Your task to perform on an android device: Open Google Maps and go to "Timeline" Image 0: 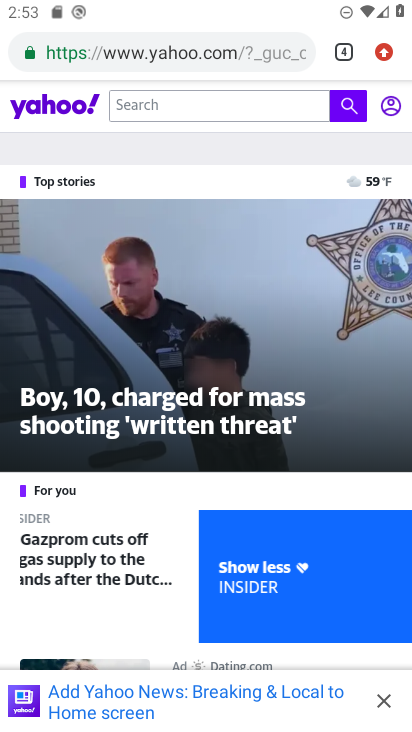
Step 0: press back button
Your task to perform on an android device: Open Google Maps and go to "Timeline" Image 1: 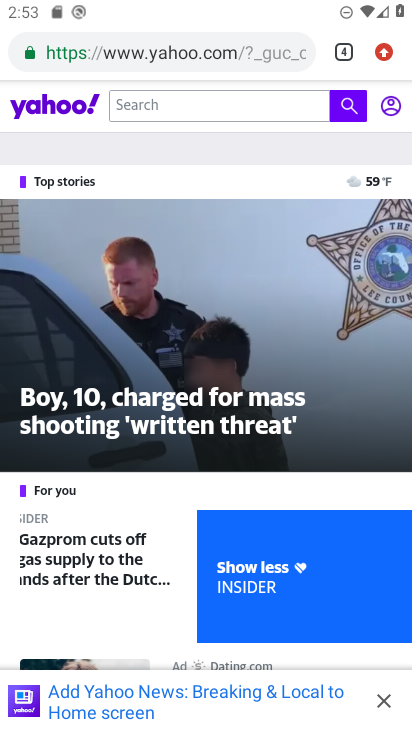
Step 1: press back button
Your task to perform on an android device: Open Google Maps and go to "Timeline" Image 2: 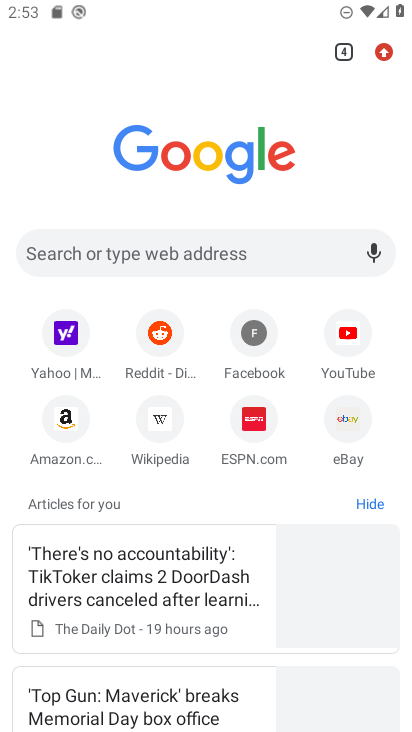
Step 2: press back button
Your task to perform on an android device: Open Google Maps and go to "Timeline" Image 3: 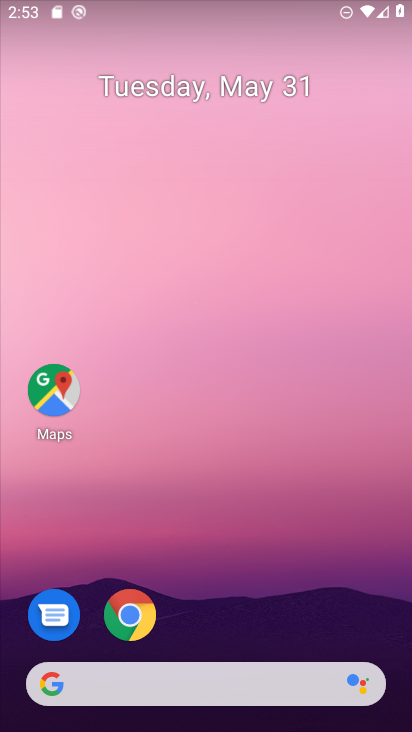
Step 3: drag from (220, 615) to (157, 302)
Your task to perform on an android device: Open Google Maps and go to "Timeline" Image 4: 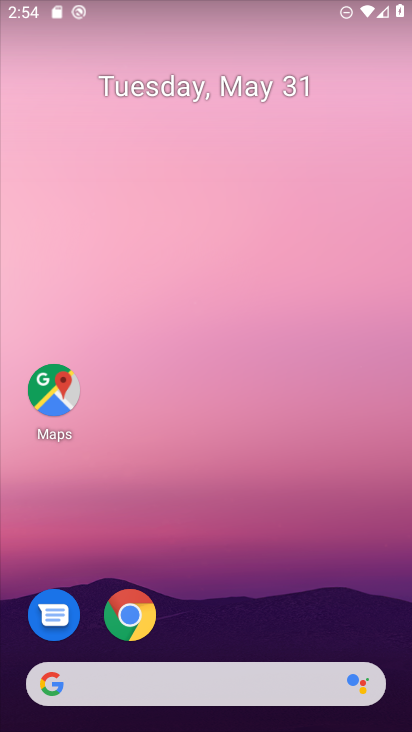
Step 4: drag from (264, 671) to (186, 143)
Your task to perform on an android device: Open Google Maps and go to "Timeline" Image 5: 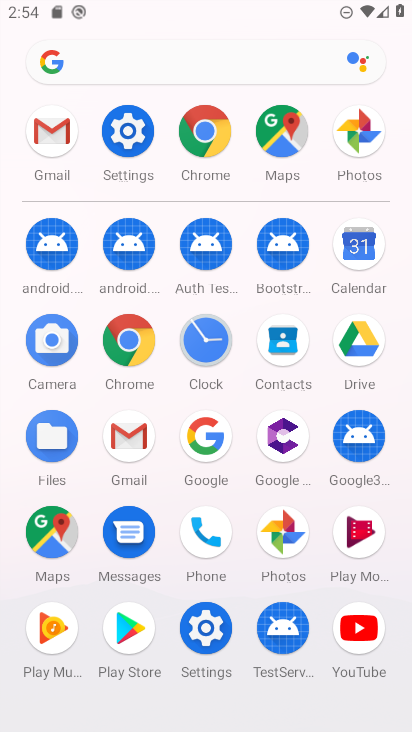
Step 5: click (57, 543)
Your task to perform on an android device: Open Google Maps and go to "Timeline" Image 6: 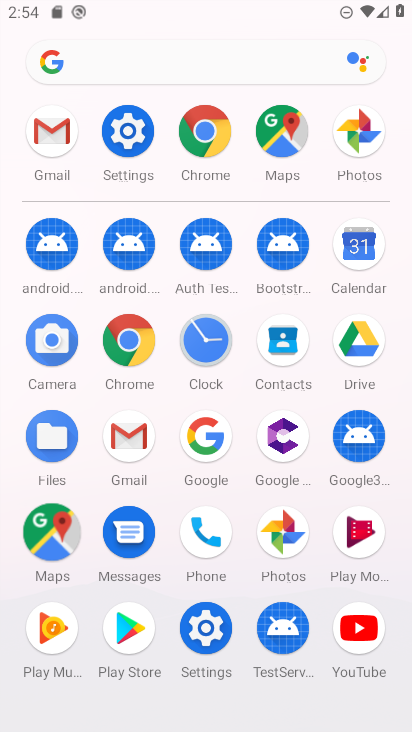
Step 6: click (29, 506)
Your task to perform on an android device: Open Google Maps and go to "Timeline" Image 7: 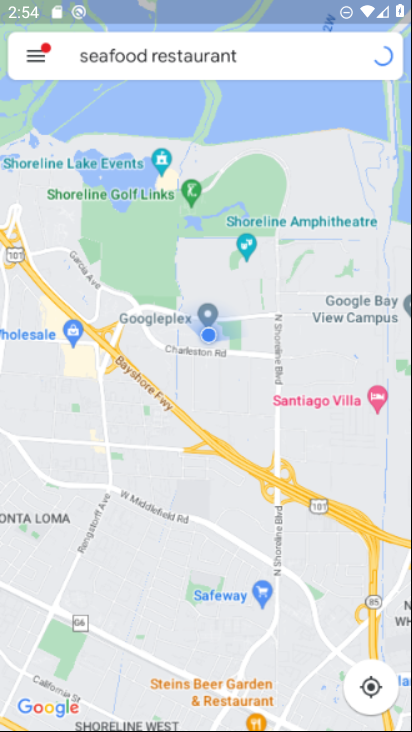
Step 7: click (29, 506)
Your task to perform on an android device: Open Google Maps and go to "Timeline" Image 8: 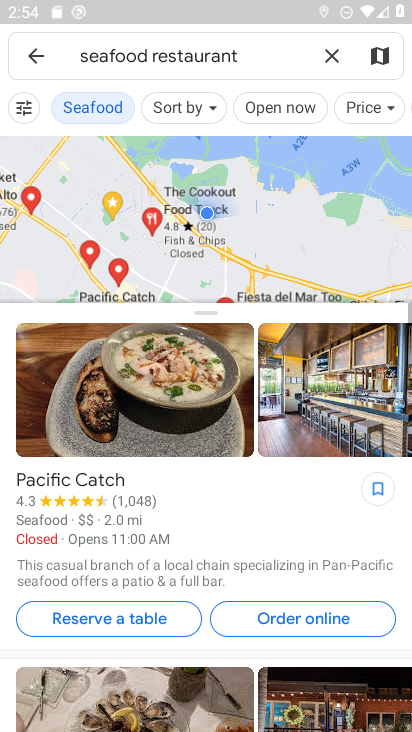
Step 8: click (31, 57)
Your task to perform on an android device: Open Google Maps and go to "Timeline" Image 9: 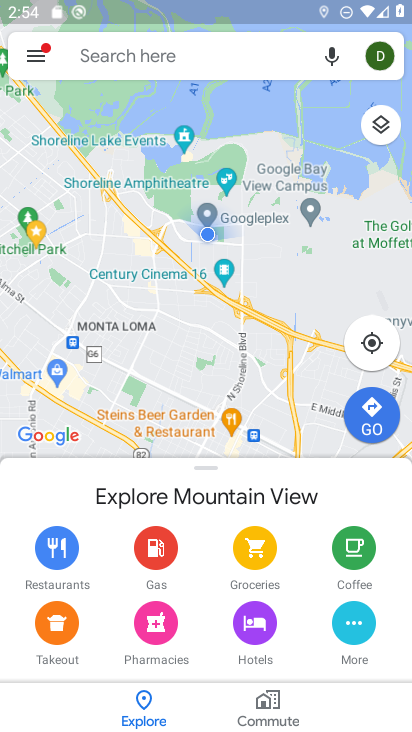
Step 9: click (33, 58)
Your task to perform on an android device: Open Google Maps and go to "Timeline" Image 10: 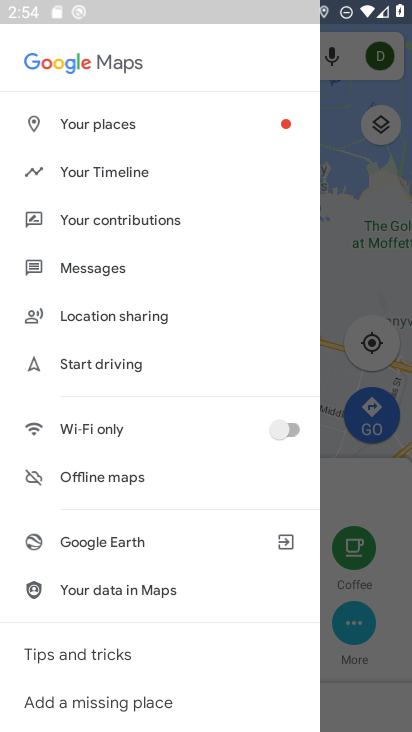
Step 10: click (117, 166)
Your task to perform on an android device: Open Google Maps and go to "Timeline" Image 11: 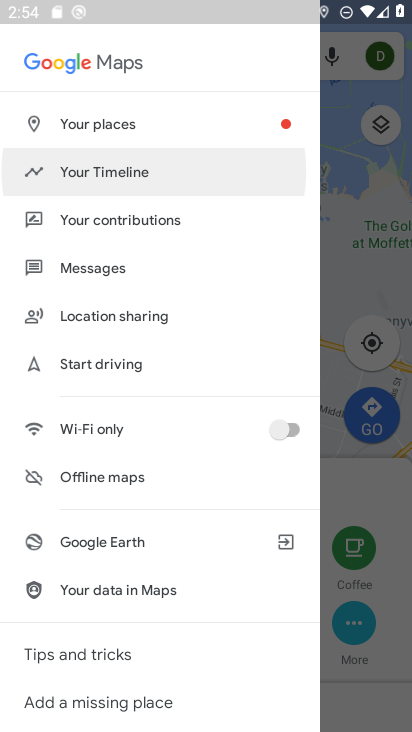
Step 11: click (117, 166)
Your task to perform on an android device: Open Google Maps and go to "Timeline" Image 12: 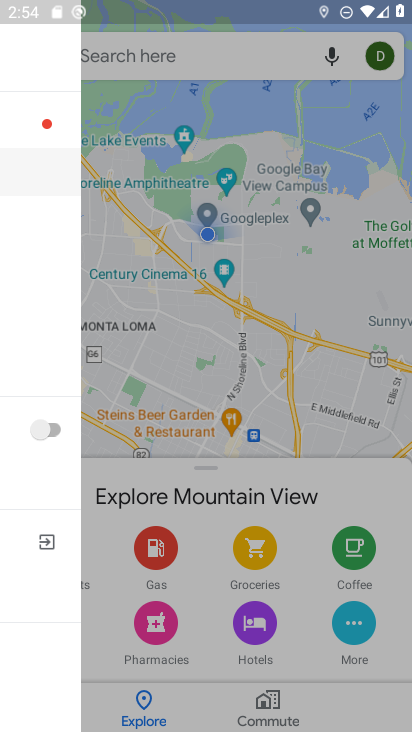
Step 12: click (117, 166)
Your task to perform on an android device: Open Google Maps and go to "Timeline" Image 13: 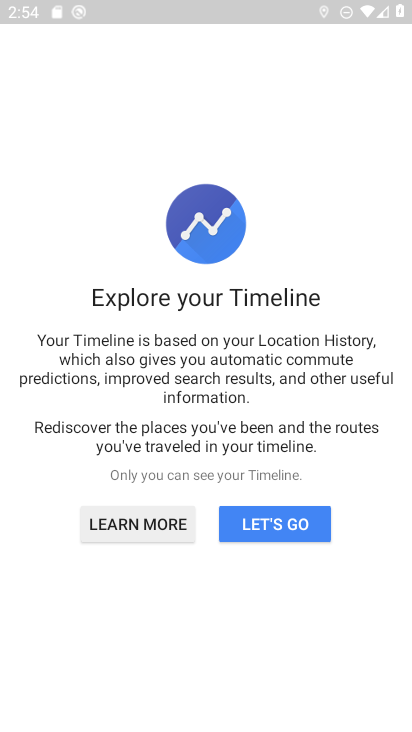
Step 13: click (292, 527)
Your task to perform on an android device: Open Google Maps and go to "Timeline" Image 14: 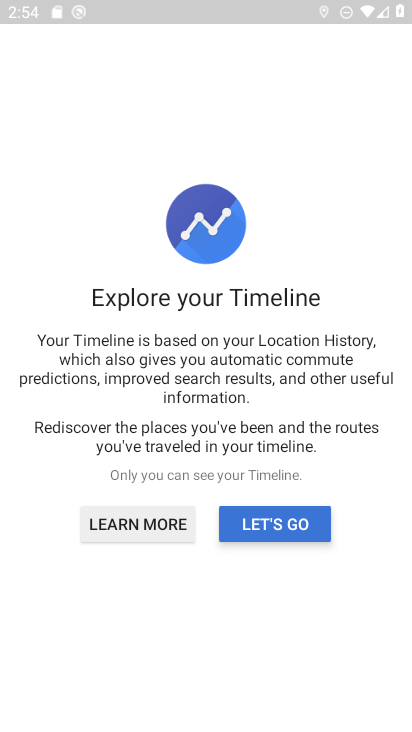
Step 14: click (288, 528)
Your task to perform on an android device: Open Google Maps and go to "Timeline" Image 15: 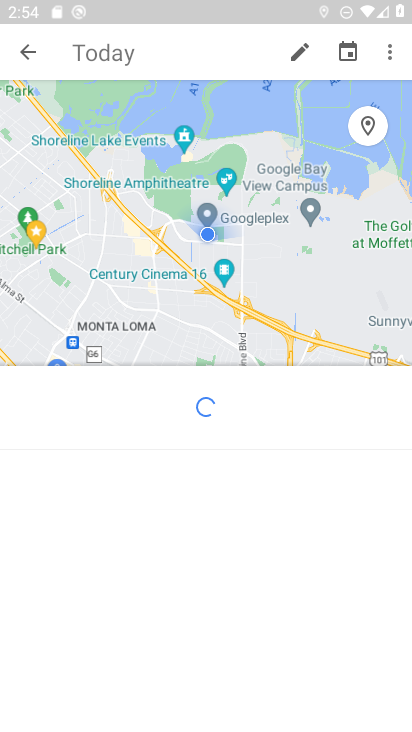
Step 15: click (282, 534)
Your task to perform on an android device: Open Google Maps and go to "Timeline" Image 16: 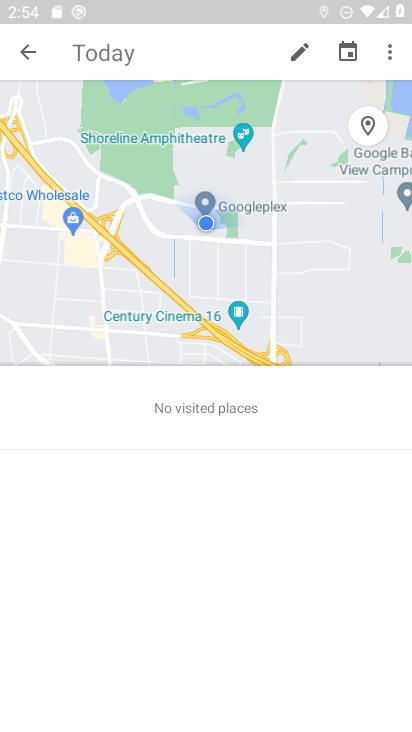
Step 16: click (282, 534)
Your task to perform on an android device: Open Google Maps and go to "Timeline" Image 17: 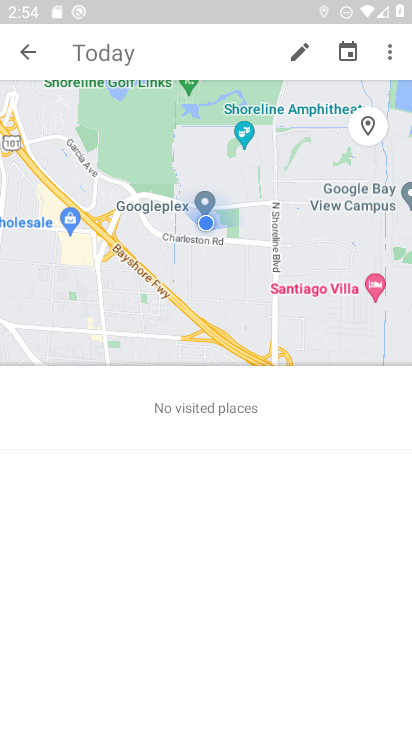
Step 17: click (389, 57)
Your task to perform on an android device: Open Google Maps and go to "Timeline" Image 18: 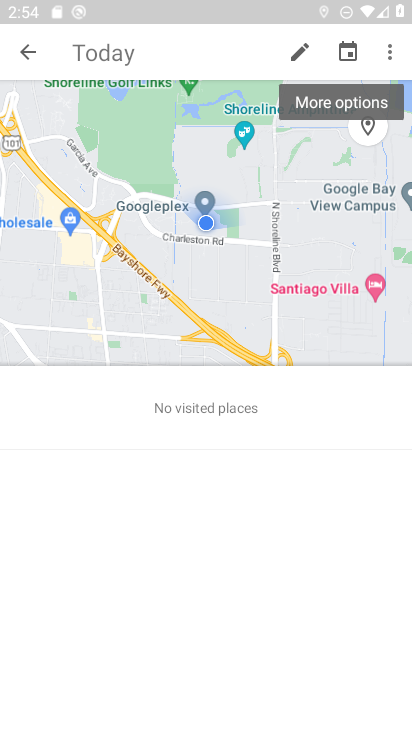
Step 18: click (385, 58)
Your task to perform on an android device: Open Google Maps and go to "Timeline" Image 19: 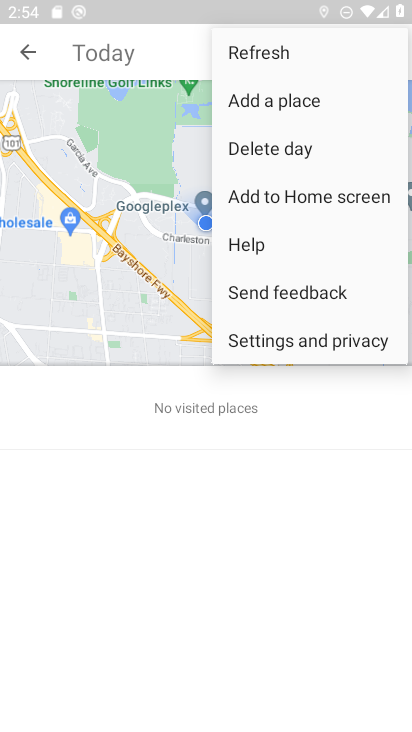
Step 19: click (281, 346)
Your task to perform on an android device: Open Google Maps and go to "Timeline" Image 20: 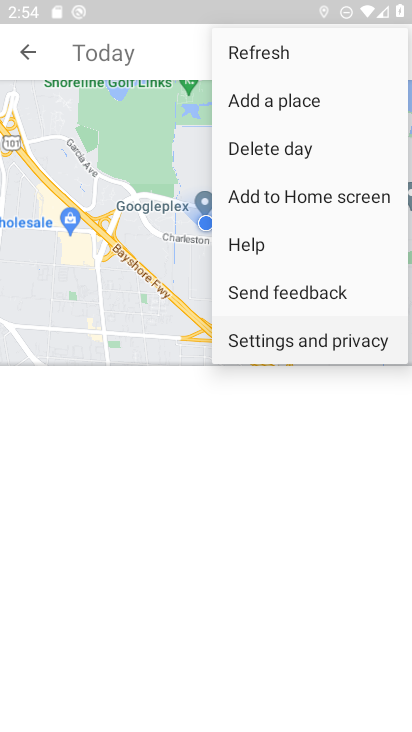
Step 20: click (279, 325)
Your task to perform on an android device: Open Google Maps and go to "Timeline" Image 21: 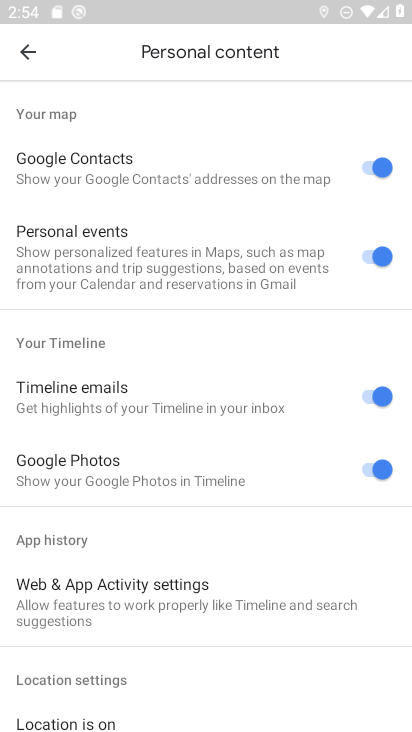
Step 21: task complete